Your task to perform on an android device: Check the weather Image 0: 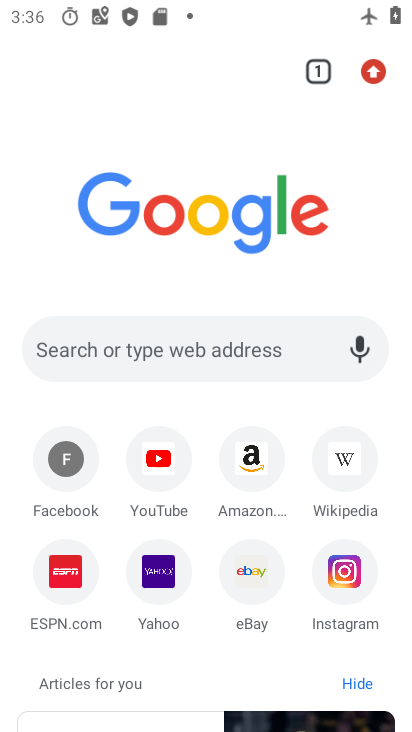
Step 0: press home button
Your task to perform on an android device: Check the weather Image 1: 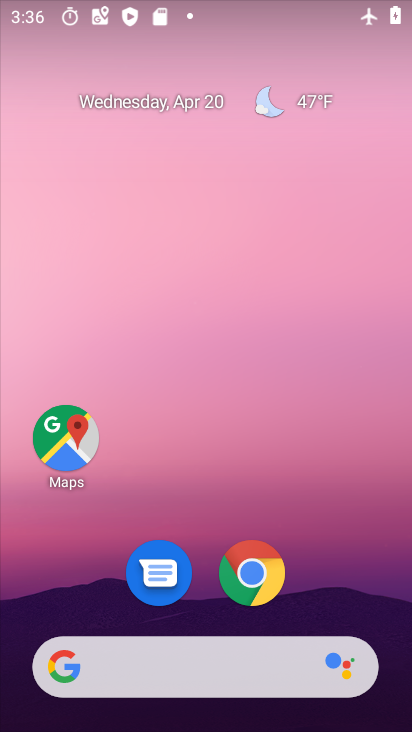
Step 1: click (267, 106)
Your task to perform on an android device: Check the weather Image 2: 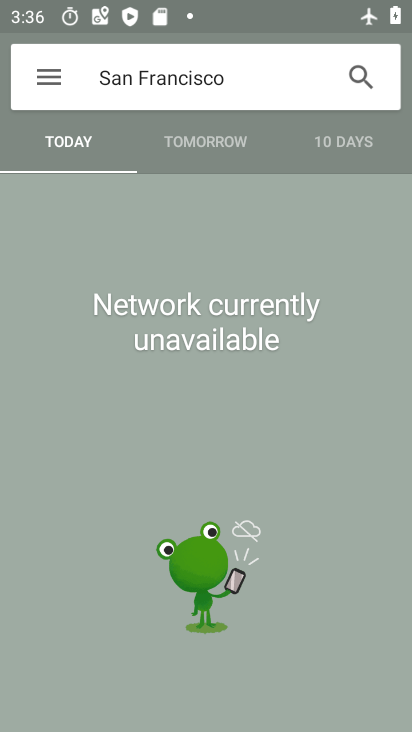
Step 2: task complete